Your task to perform on an android device: Open Youtube and go to "Your channel" Image 0: 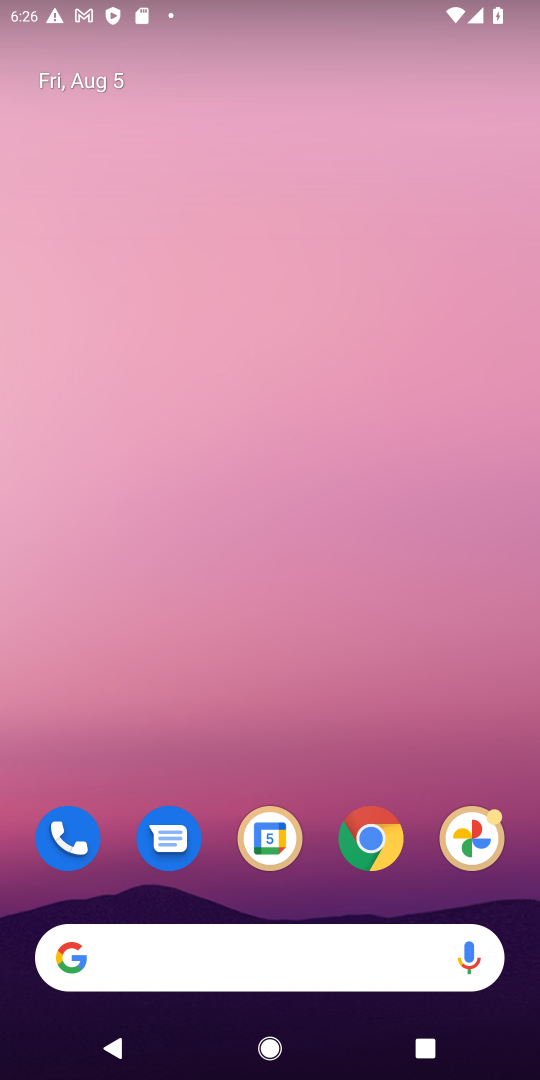
Step 0: drag from (253, 761) to (214, 190)
Your task to perform on an android device: Open Youtube and go to "Your channel" Image 1: 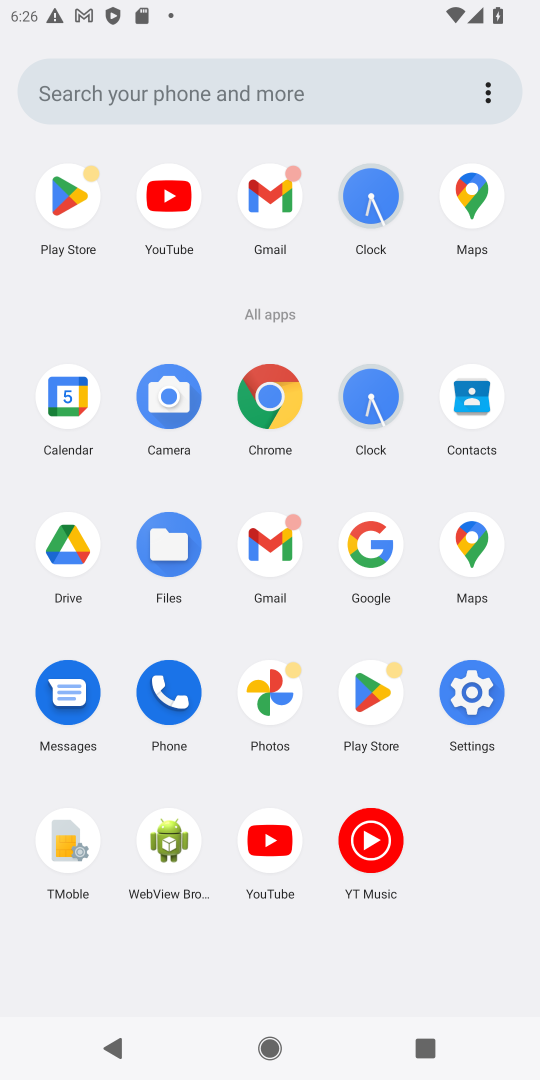
Step 1: click (262, 854)
Your task to perform on an android device: Open Youtube and go to "Your channel" Image 2: 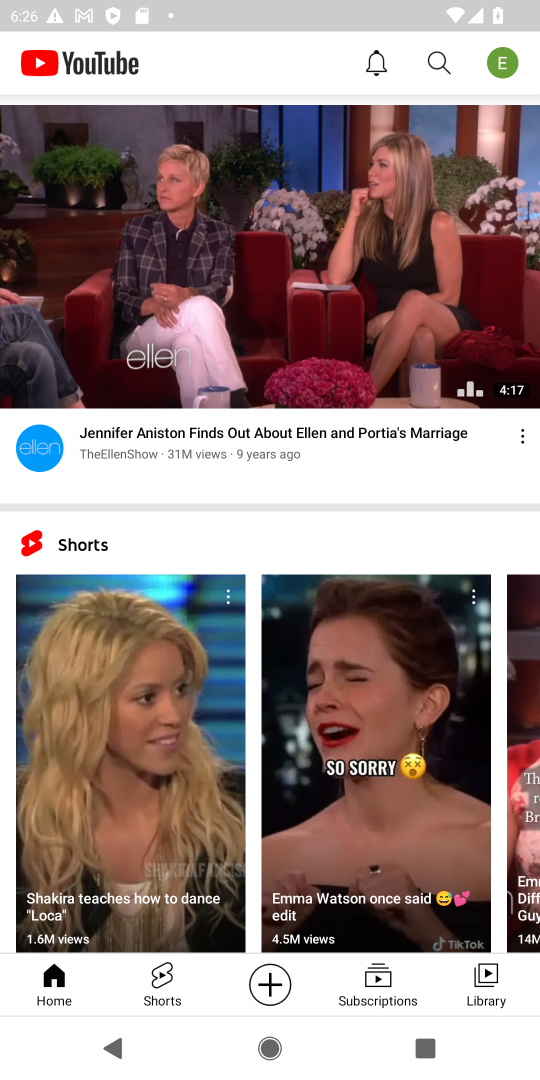
Step 2: click (504, 60)
Your task to perform on an android device: Open Youtube and go to "Your channel" Image 3: 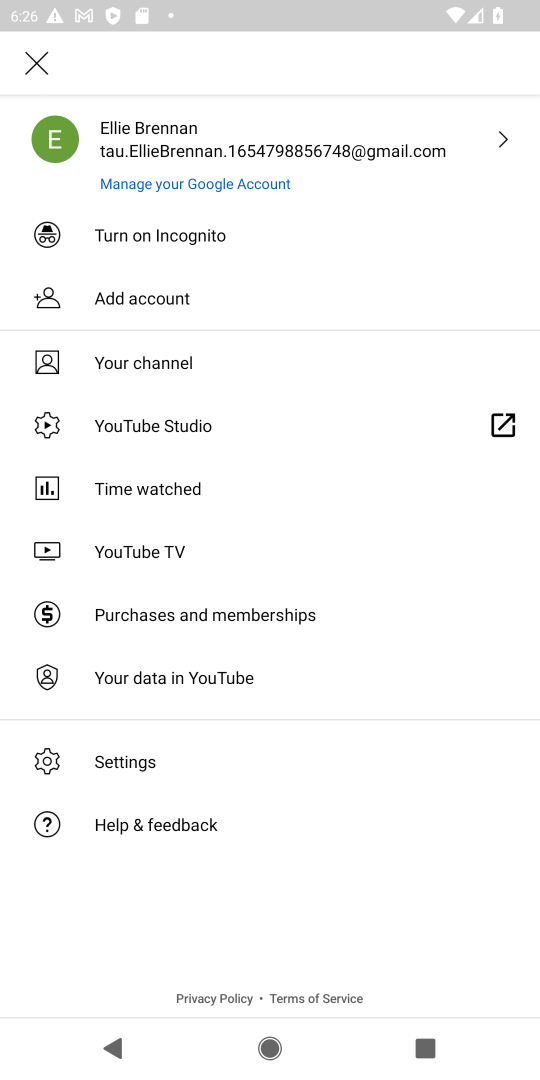
Step 3: click (138, 362)
Your task to perform on an android device: Open Youtube and go to "Your channel" Image 4: 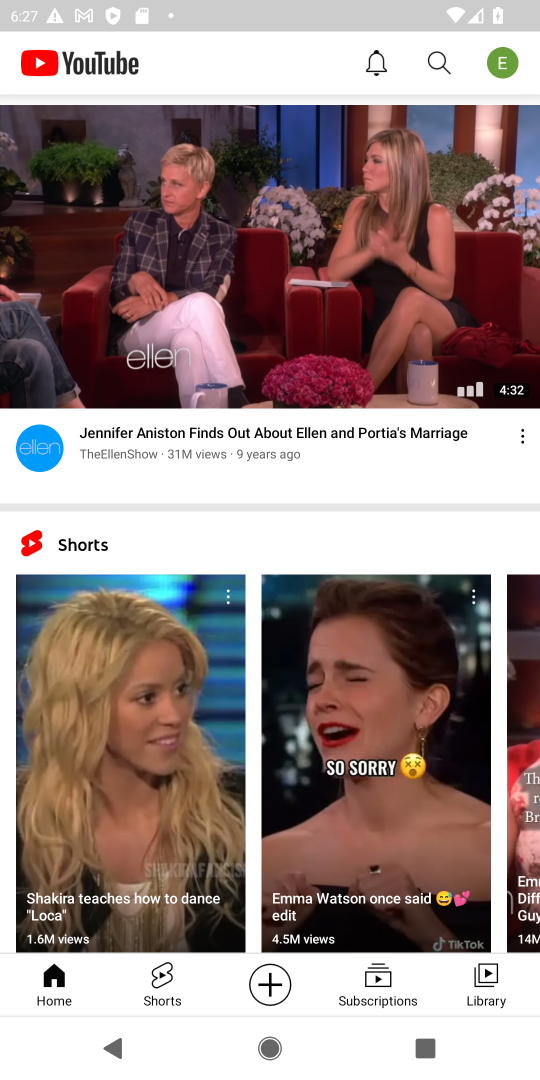
Step 4: task complete